Your task to perform on an android device: make emails show in primary in the gmail app Image 0: 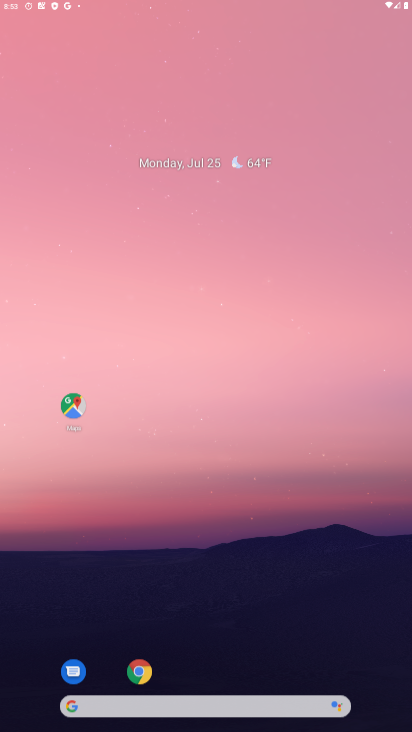
Step 0: click (230, 177)
Your task to perform on an android device: make emails show in primary in the gmail app Image 1: 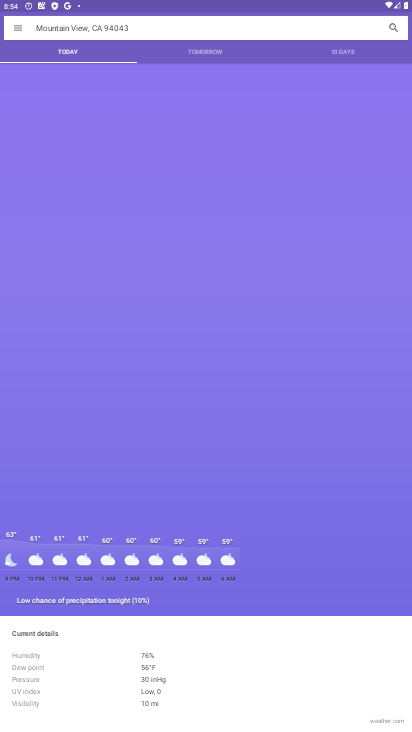
Step 1: drag from (213, 692) to (278, 196)
Your task to perform on an android device: make emails show in primary in the gmail app Image 2: 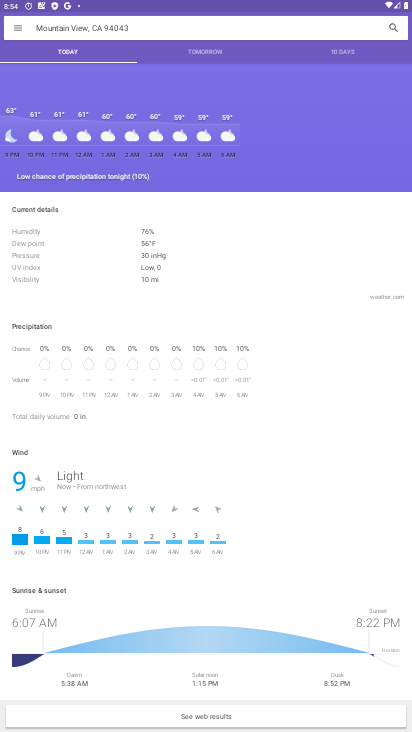
Step 2: drag from (216, 576) to (236, 274)
Your task to perform on an android device: make emails show in primary in the gmail app Image 3: 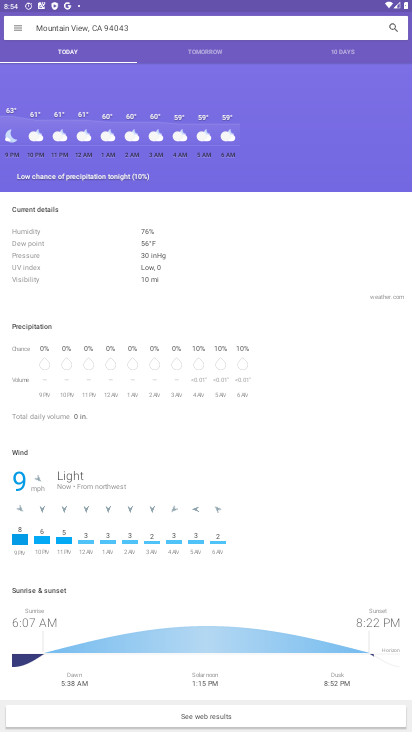
Step 3: drag from (257, 152) to (225, 711)
Your task to perform on an android device: make emails show in primary in the gmail app Image 4: 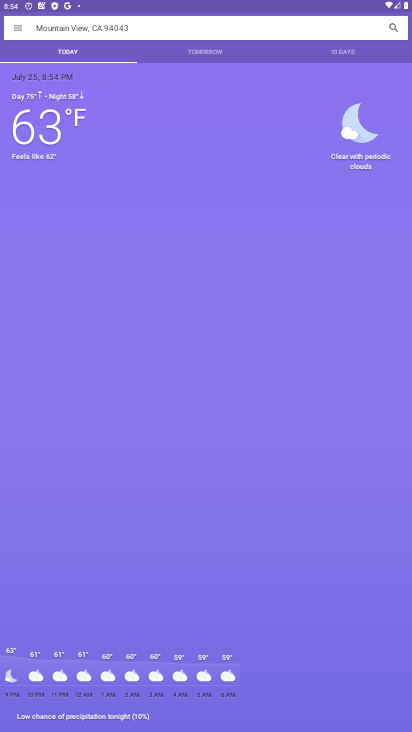
Step 4: press home button
Your task to perform on an android device: make emails show in primary in the gmail app Image 5: 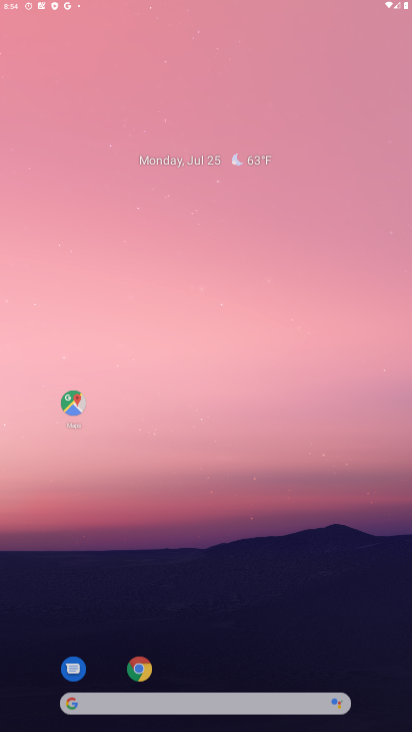
Step 5: drag from (133, 689) to (241, 292)
Your task to perform on an android device: make emails show in primary in the gmail app Image 6: 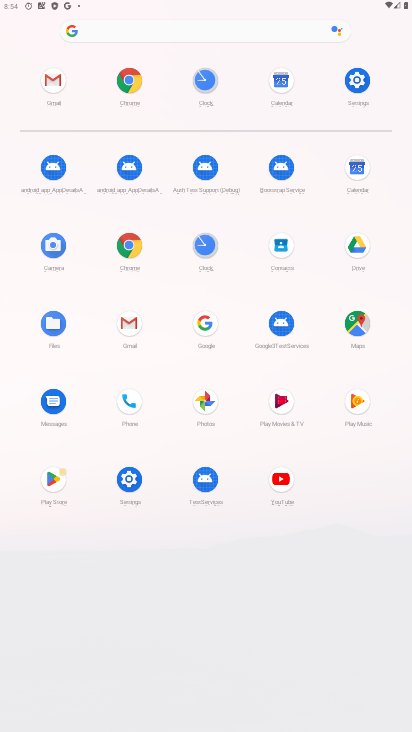
Step 6: click (128, 324)
Your task to perform on an android device: make emails show in primary in the gmail app Image 7: 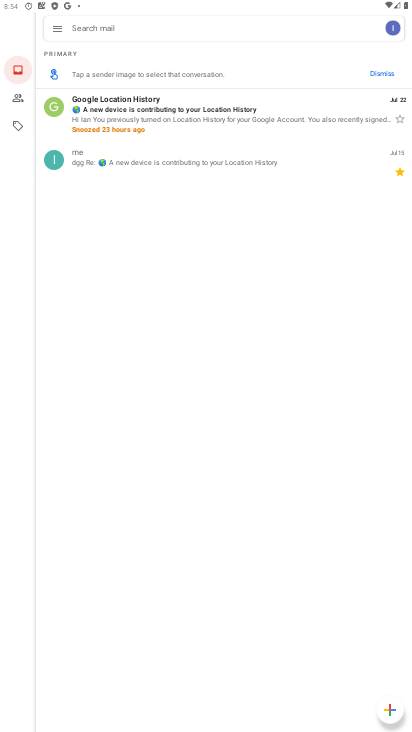
Step 7: click (55, 22)
Your task to perform on an android device: make emails show in primary in the gmail app Image 8: 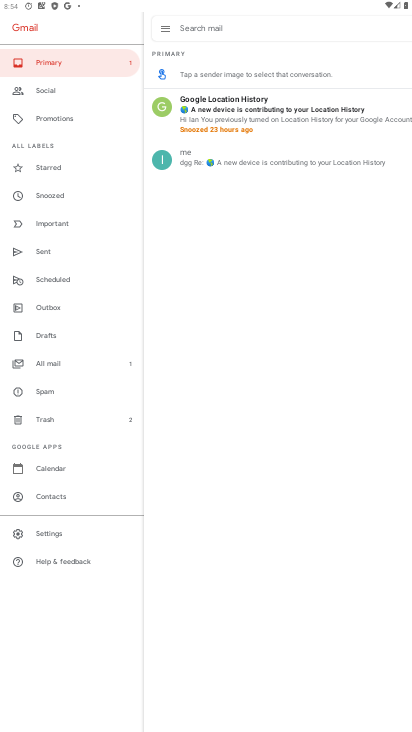
Step 8: click (58, 68)
Your task to perform on an android device: make emails show in primary in the gmail app Image 9: 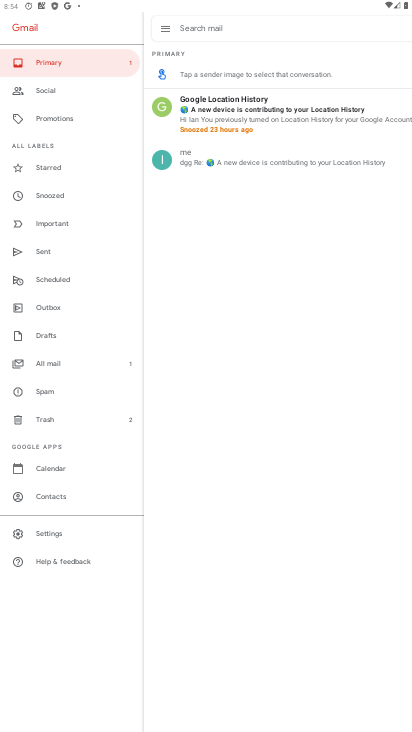
Step 9: click (161, 26)
Your task to perform on an android device: make emails show in primary in the gmail app Image 10: 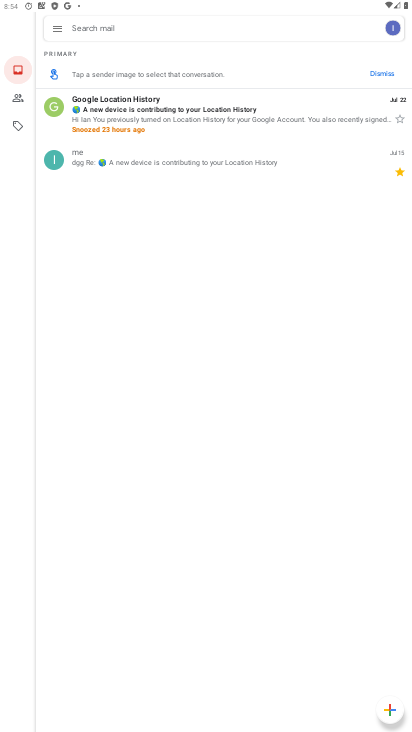
Step 10: task complete